Your task to perform on an android device: Go to settings Image 0: 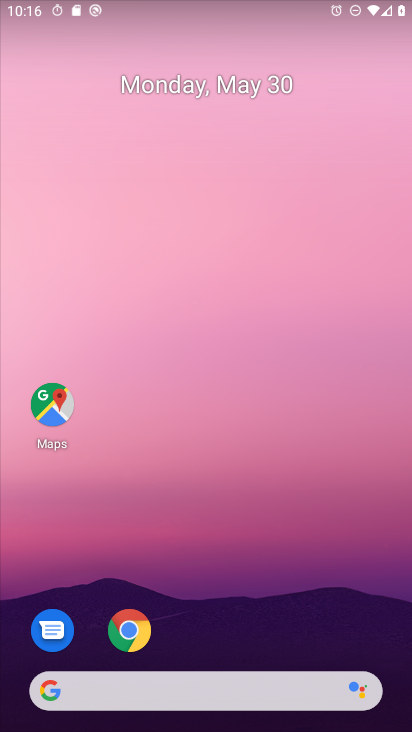
Step 0: drag from (350, 609) to (396, 133)
Your task to perform on an android device: Go to settings Image 1: 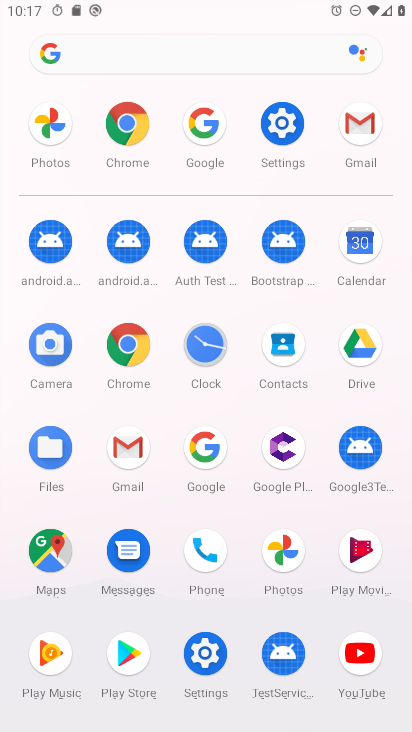
Step 1: click (223, 654)
Your task to perform on an android device: Go to settings Image 2: 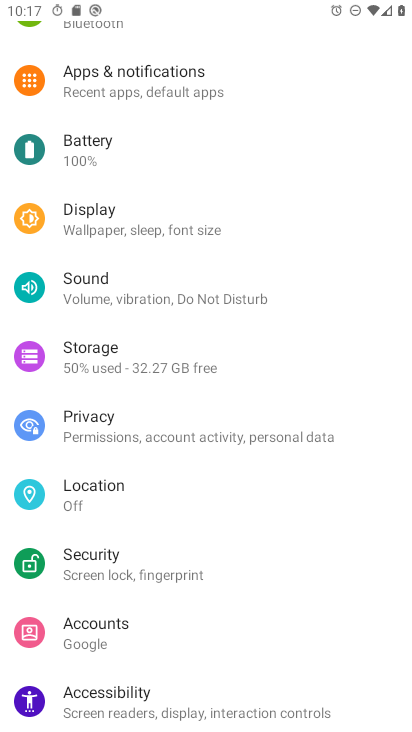
Step 2: task complete